Your task to perform on an android device: open sync settings in chrome Image 0: 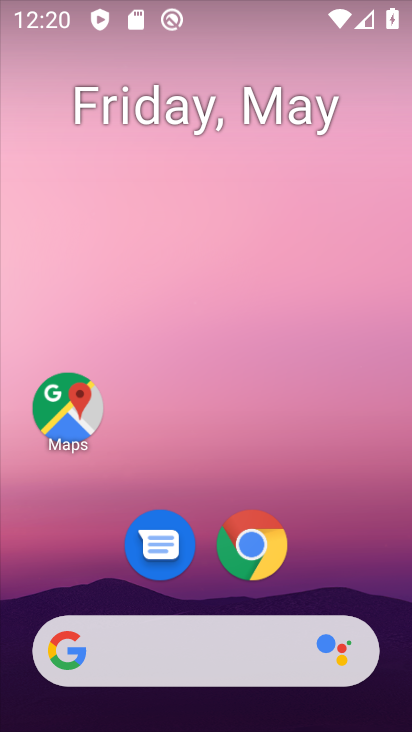
Step 0: click (262, 546)
Your task to perform on an android device: open sync settings in chrome Image 1: 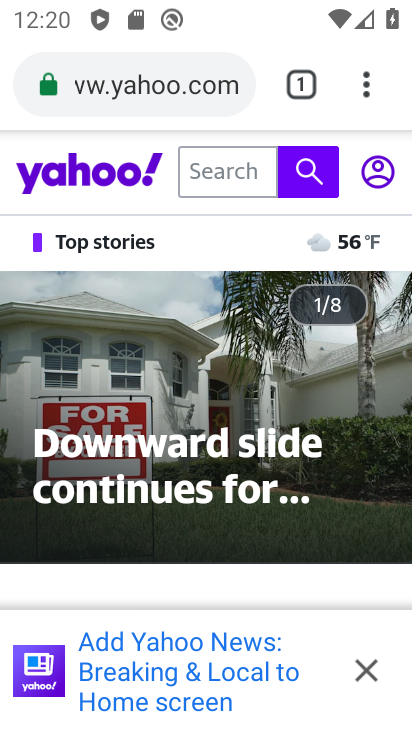
Step 1: click (373, 78)
Your task to perform on an android device: open sync settings in chrome Image 2: 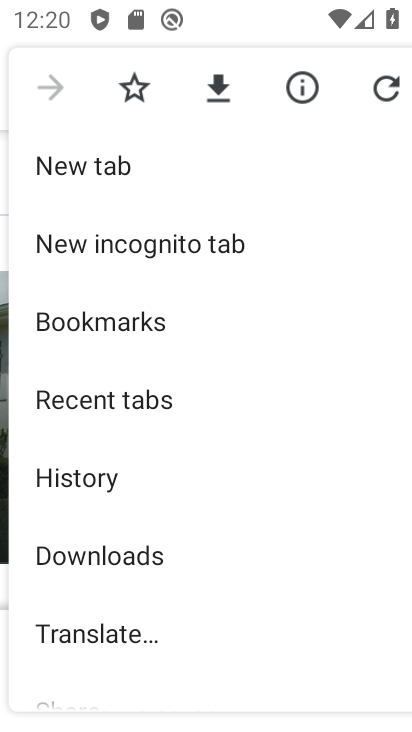
Step 2: drag from (256, 544) to (261, 227)
Your task to perform on an android device: open sync settings in chrome Image 3: 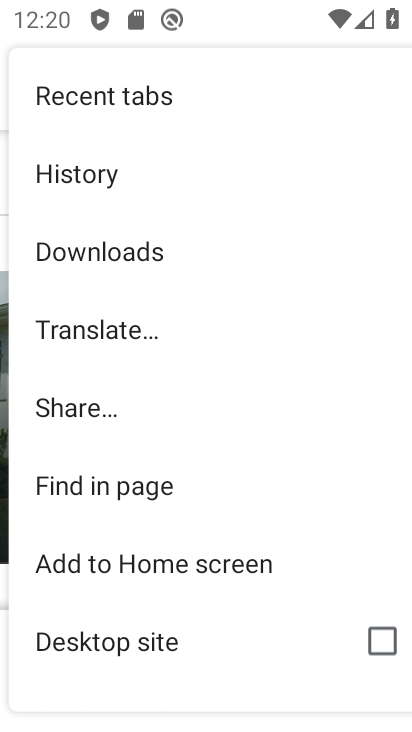
Step 3: drag from (278, 487) to (285, 186)
Your task to perform on an android device: open sync settings in chrome Image 4: 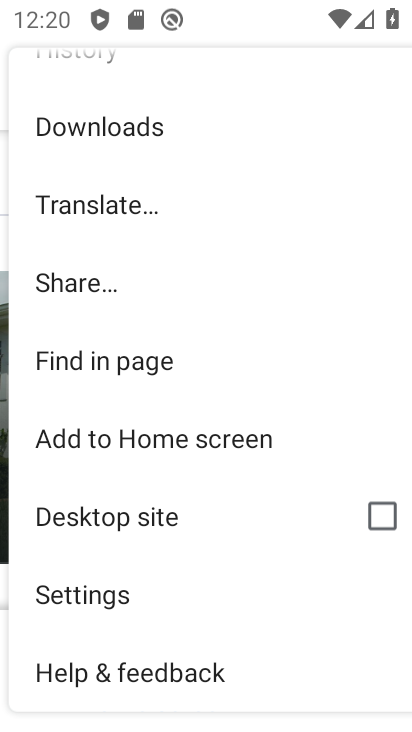
Step 4: click (92, 588)
Your task to perform on an android device: open sync settings in chrome Image 5: 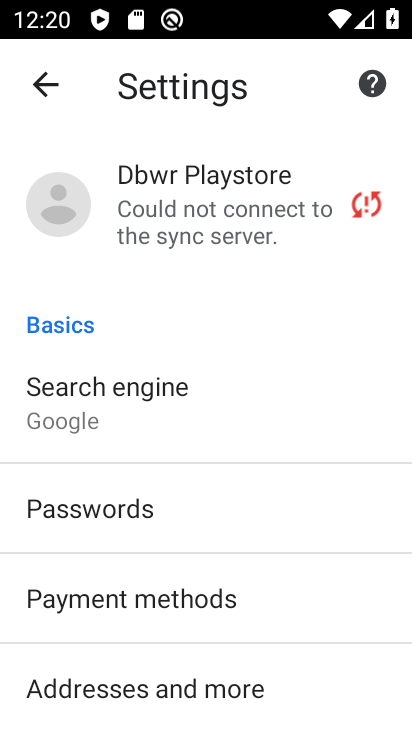
Step 5: drag from (230, 584) to (263, 220)
Your task to perform on an android device: open sync settings in chrome Image 6: 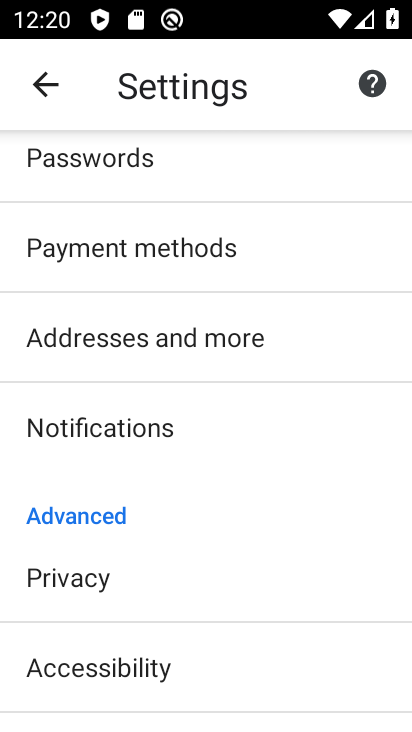
Step 6: drag from (256, 580) to (249, 188)
Your task to perform on an android device: open sync settings in chrome Image 7: 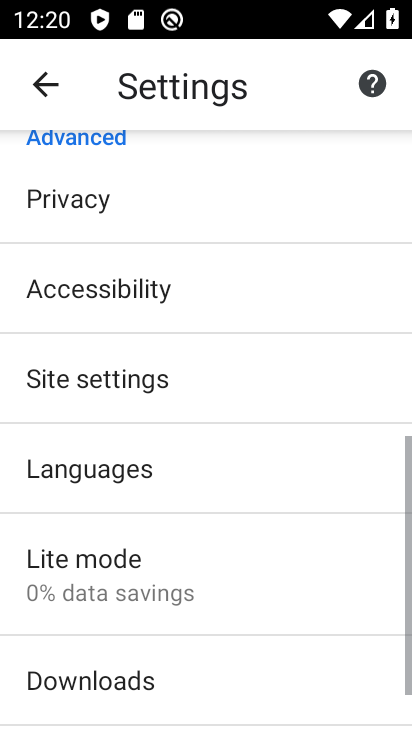
Step 7: drag from (179, 610) to (184, 204)
Your task to perform on an android device: open sync settings in chrome Image 8: 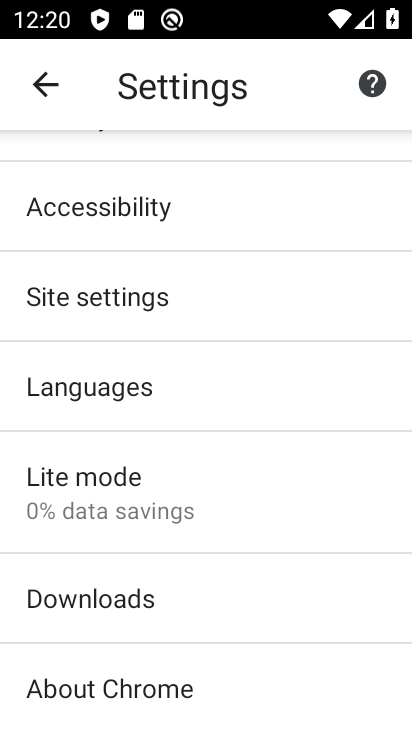
Step 8: click (251, 221)
Your task to perform on an android device: open sync settings in chrome Image 9: 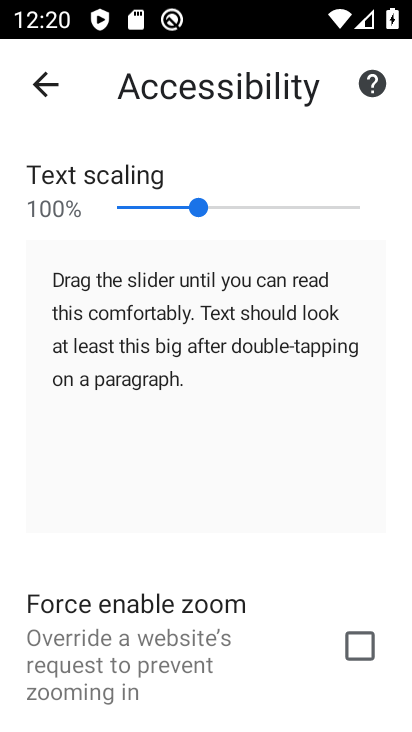
Step 9: drag from (264, 478) to (294, 216)
Your task to perform on an android device: open sync settings in chrome Image 10: 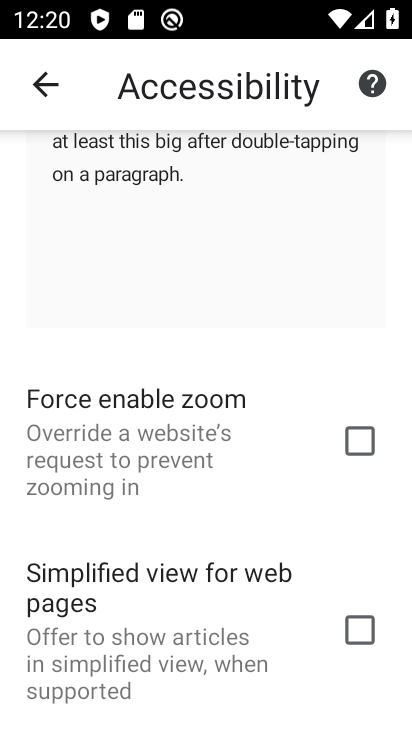
Step 10: drag from (144, 547) to (215, 253)
Your task to perform on an android device: open sync settings in chrome Image 11: 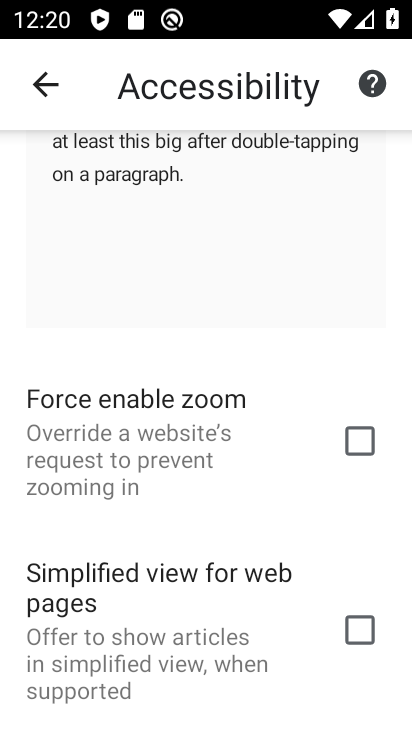
Step 11: press back button
Your task to perform on an android device: open sync settings in chrome Image 12: 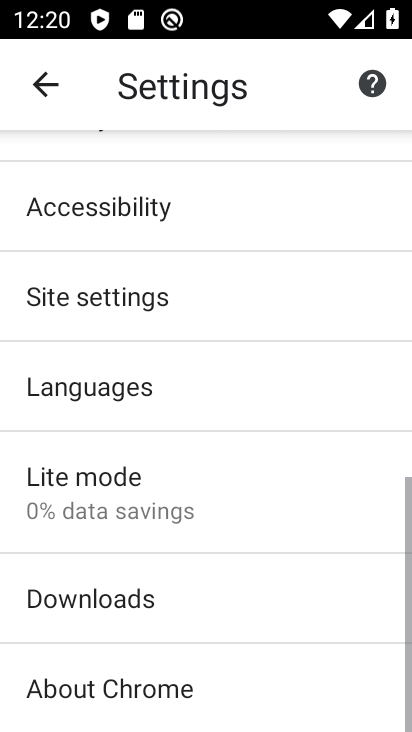
Step 12: drag from (283, 693) to (341, 332)
Your task to perform on an android device: open sync settings in chrome Image 13: 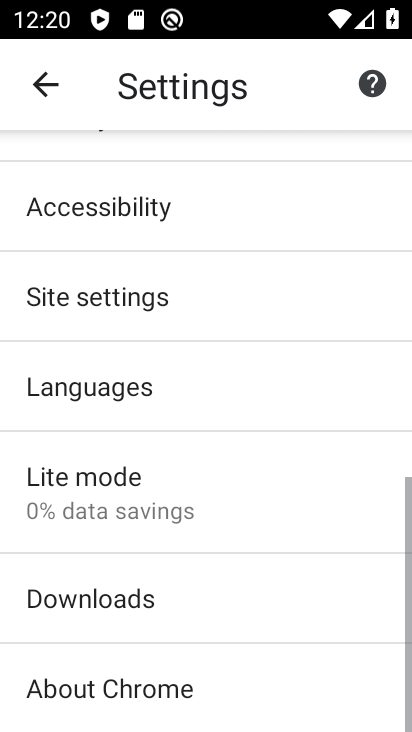
Step 13: click (296, 671)
Your task to perform on an android device: open sync settings in chrome Image 14: 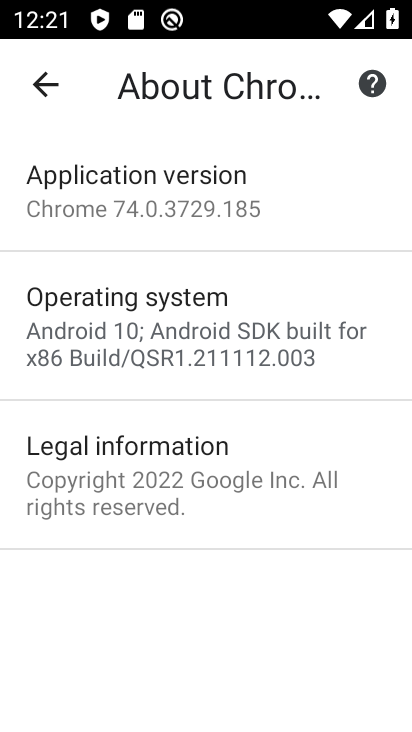
Step 14: press back button
Your task to perform on an android device: open sync settings in chrome Image 15: 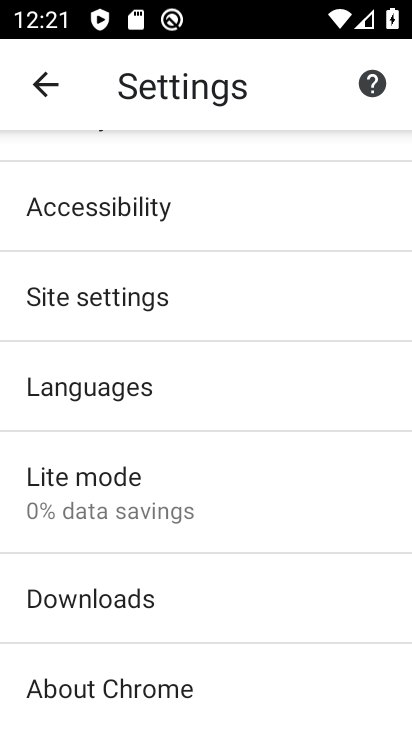
Step 15: drag from (290, 238) to (308, 488)
Your task to perform on an android device: open sync settings in chrome Image 16: 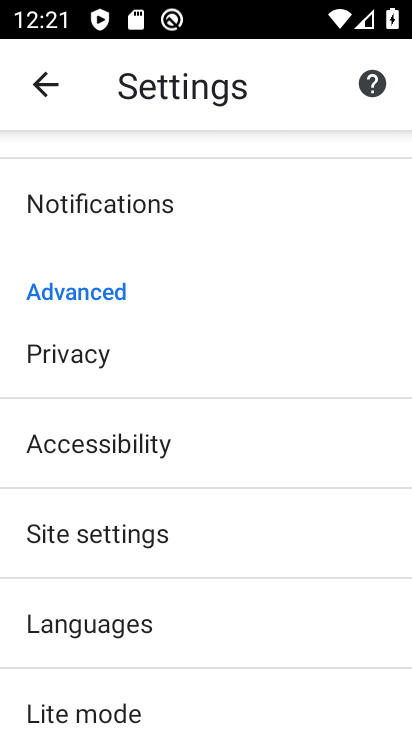
Step 16: click (303, 345)
Your task to perform on an android device: open sync settings in chrome Image 17: 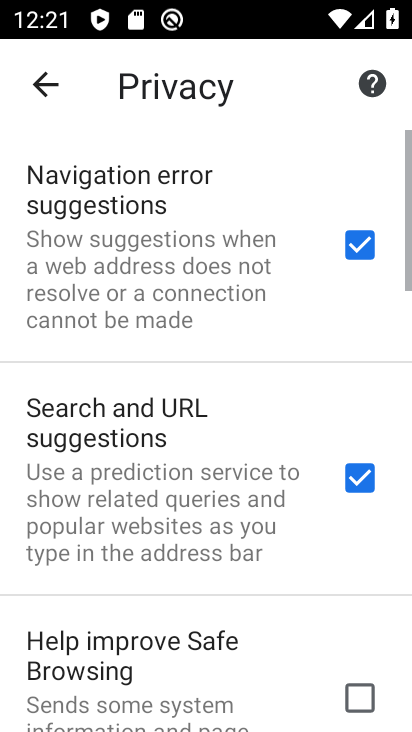
Step 17: drag from (130, 508) to (183, 244)
Your task to perform on an android device: open sync settings in chrome Image 18: 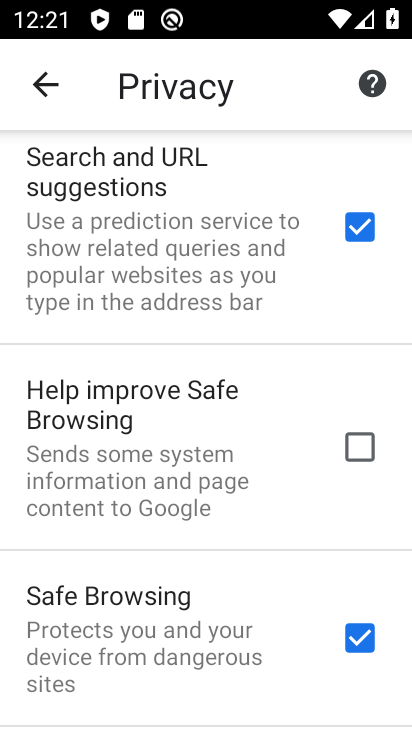
Step 18: drag from (154, 554) to (194, 223)
Your task to perform on an android device: open sync settings in chrome Image 19: 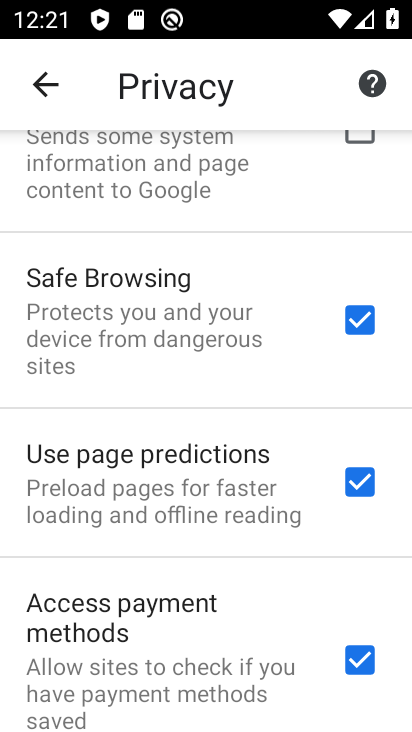
Step 19: drag from (89, 530) to (158, 188)
Your task to perform on an android device: open sync settings in chrome Image 20: 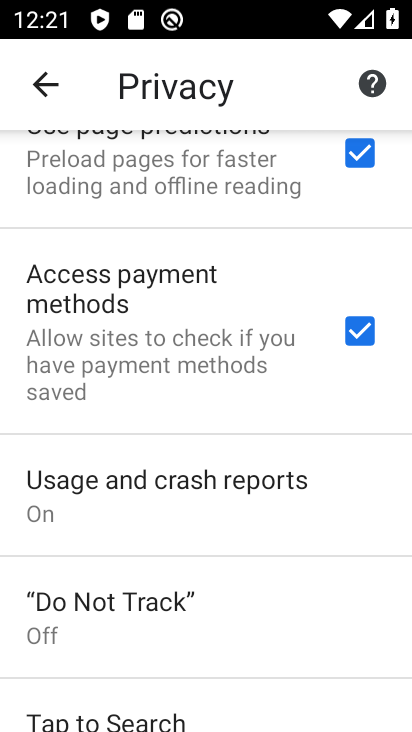
Step 20: drag from (112, 550) to (169, 217)
Your task to perform on an android device: open sync settings in chrome Image 21: 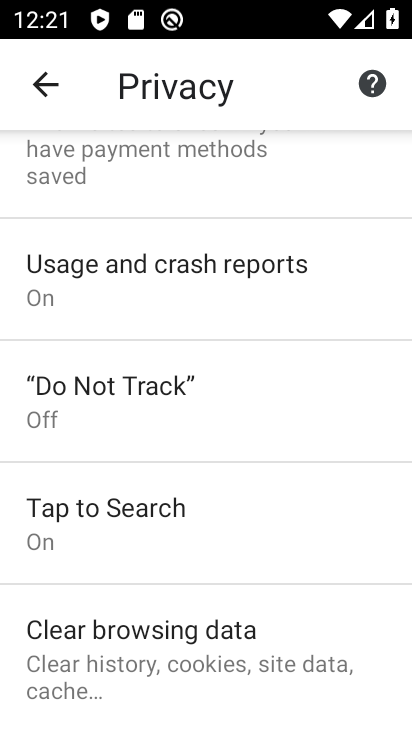
Step 21: drag from (117, 589) to (188, 207)
Your task to perform on an android device: open sync settings in chrome Image 22: 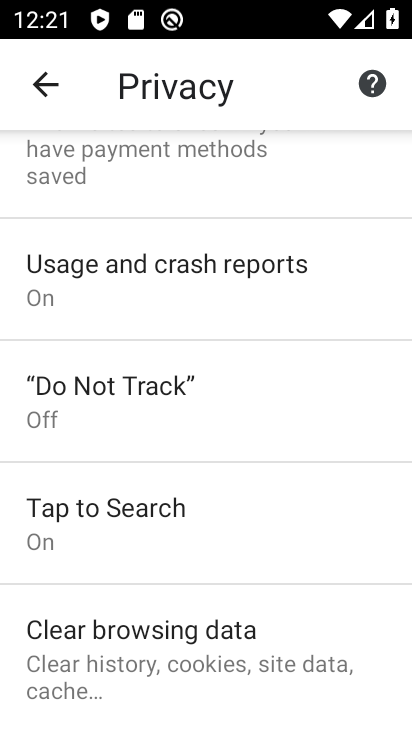
Step 22: press back button
Your task to perform on an android device: open sync settings in chrome Image 23: 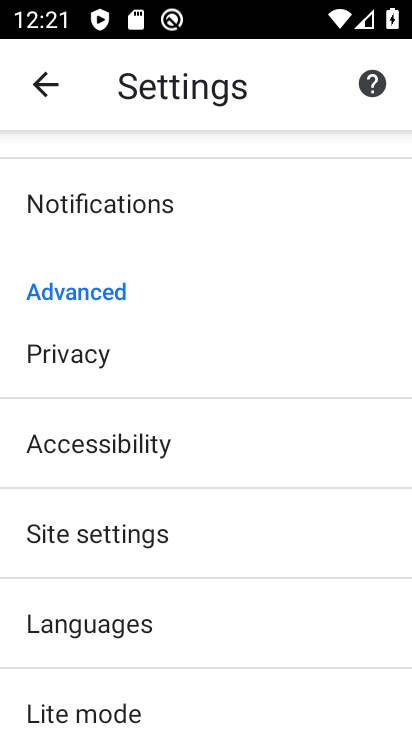
Step 23: click (208, 445)
Your task to perform on an android device: open sync settings in chrome Image 24: 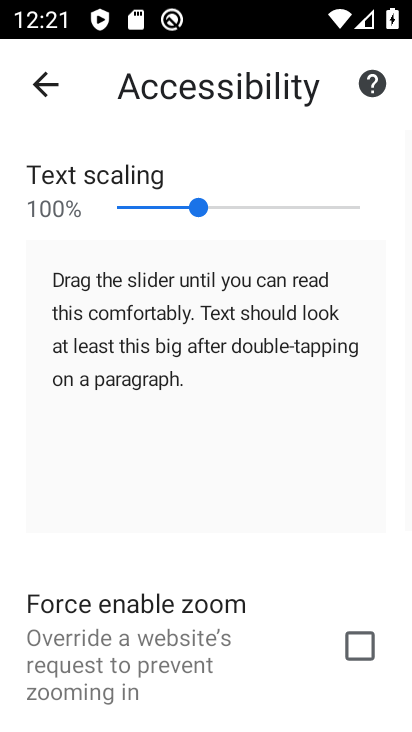
Step 24: drag from (168, 527) to (230, 230)
Your task to perform on an android device: open sync settings in chrome Image 25: 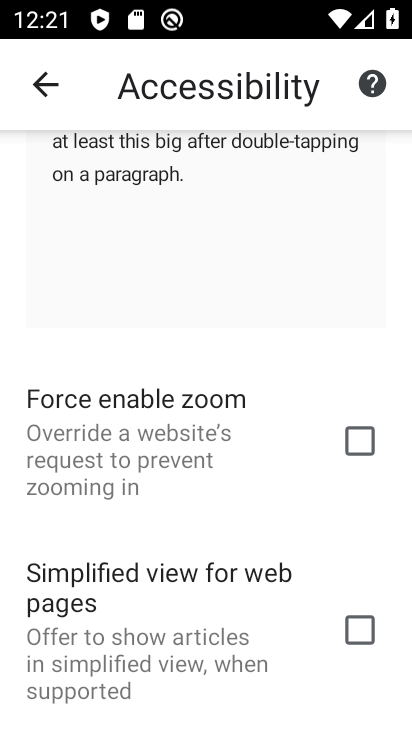
Step 25: drag from (120, 523) to (168, 223)
Your task to perform on an android device: open sync settings in chrome Image 26: 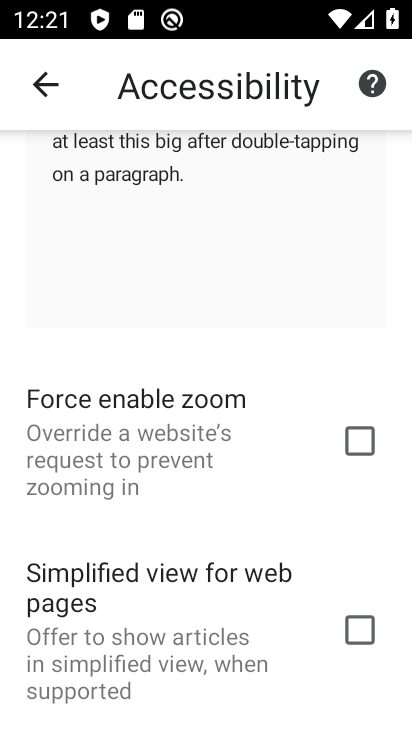
Step 26: press back button
Your task to perform on an android device: open sync settings in chrome Image 27: 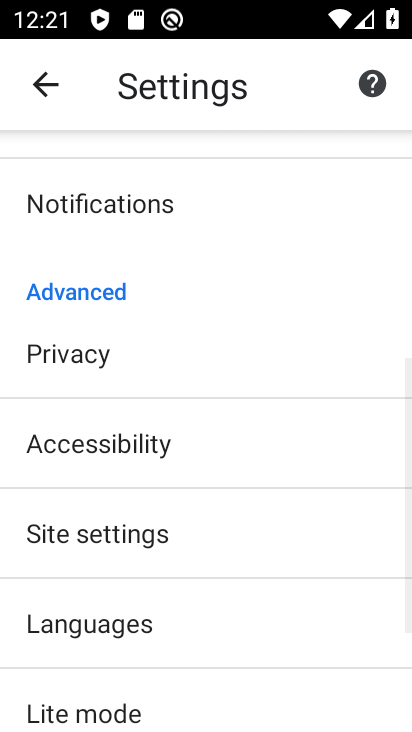
Step 27: click (156, 353)
Your task to perform on an android device: open sync settings in chrome Image 28: 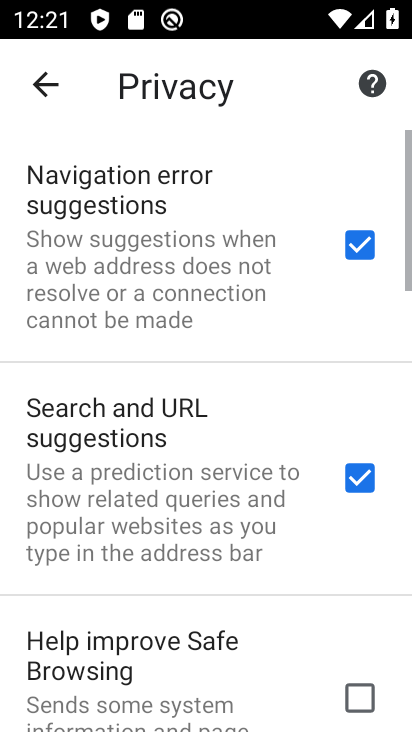
Step 28: task complete